Your task to perform on an android device: Open calendar and show me the fourth week of next month Image 0: 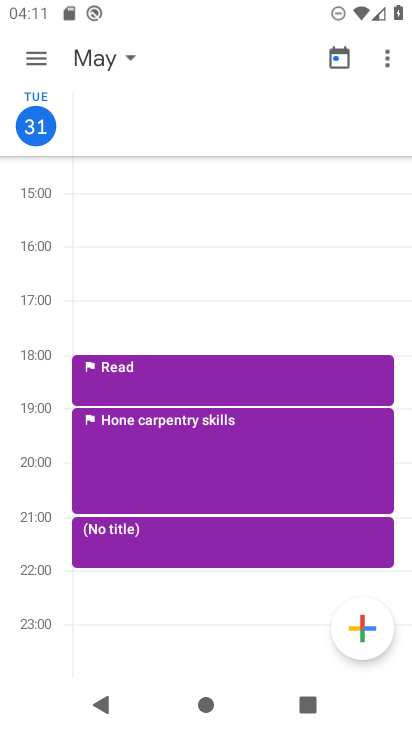
Step 0: press home button
Your task to perform on an android device: Open calendar and show me the fourth week of next month Image 1: 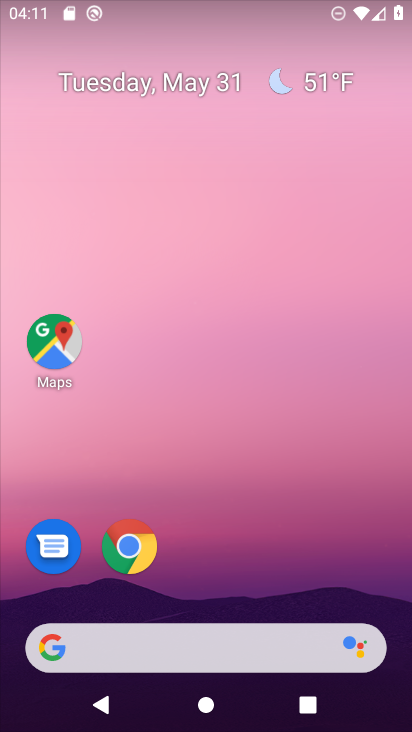
Step 1: drag from (226, 589) to (187, 329)
Your task to perform on an android device: Open calendar and show me the fourth week of next month Image 2: 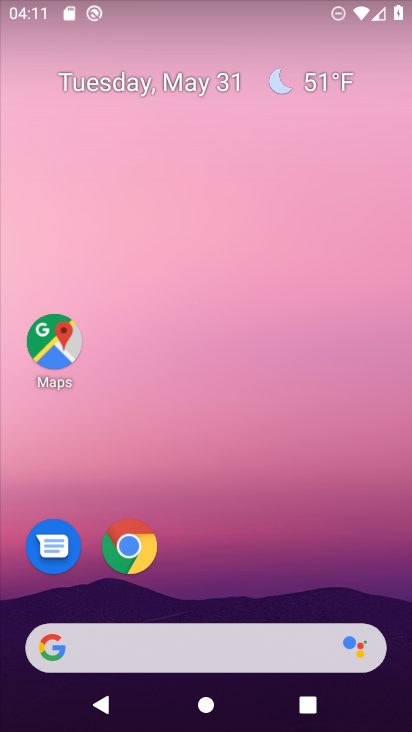
Step 2: drag from (226, 586) to (188, 112)
Your task to perform on an android device: Open calendar and show me the fourth week of next month Image 3: 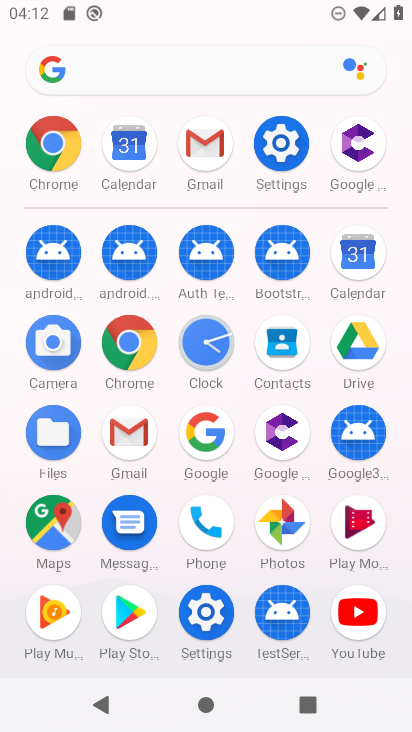
Step 3: click (360, 286)
Your task to perform on an android device: Open calendar and show me the fourth week of next month Image 4: 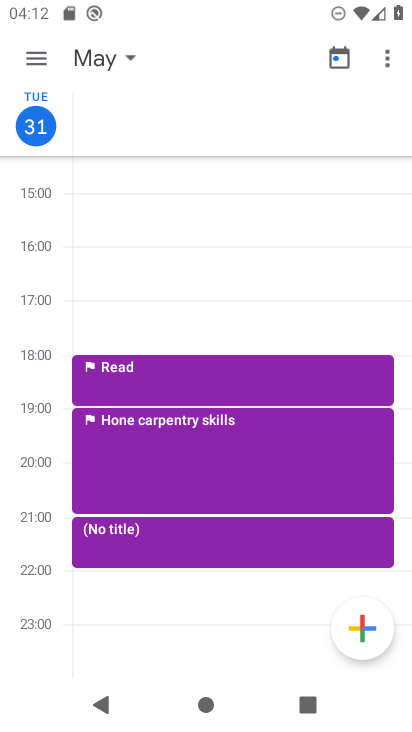
Step 4: click (34, 60)
Your task to perform on an android device: Open calendar and show me the fourth week of next month Image 5: 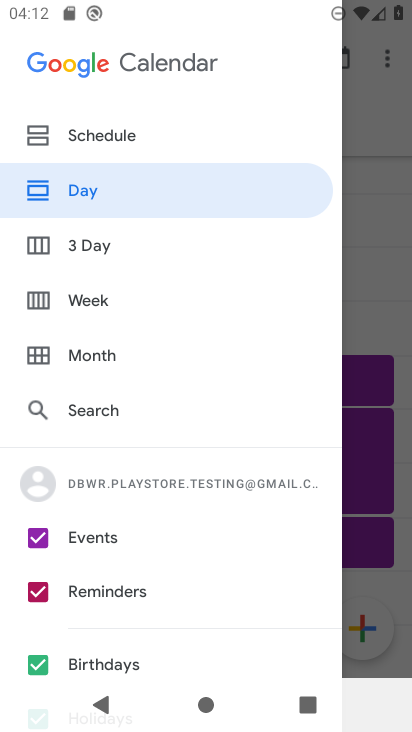
Step 5: click (83, 306)
Your task to perform on an android device: Open calendar and show me the fourth week of next month Image 6: 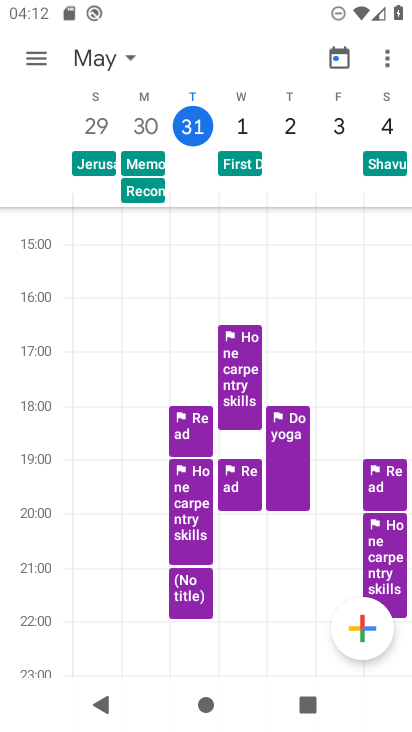
Step 6: click (86, 67)
Your task to perform on an android device: Open calendar and show me the fourth week of next month Image 7: 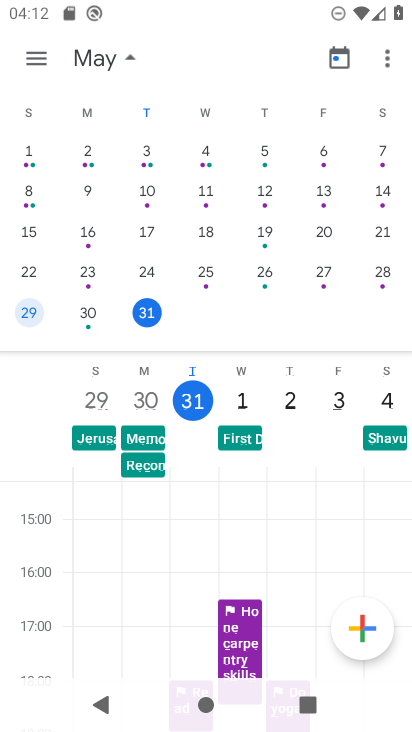
Step 7: drag from (339, 188) to (0, 223)
Your task to perform on an android device: Open calendar and show me the fourth week of next month Image 8: 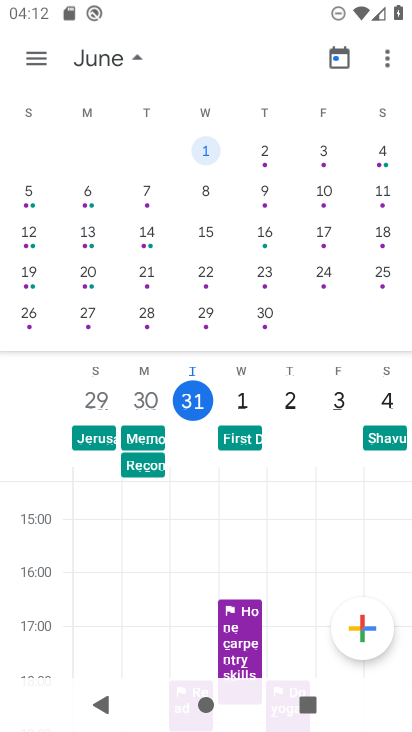
Step 8: click (23, 319)
Your task to perform on an android device: Open calendar and show me the fourth week of next month Image 9: 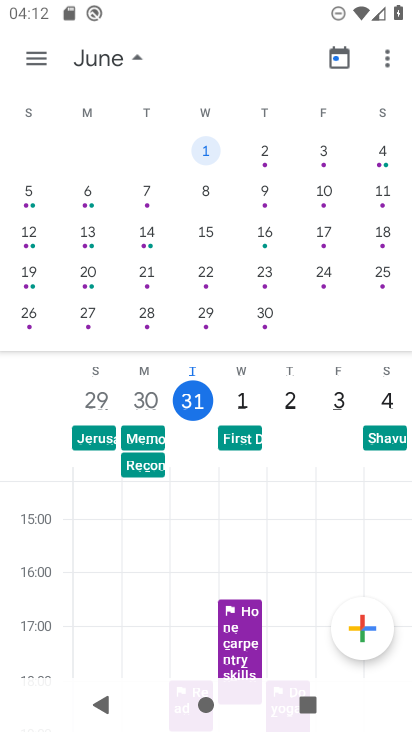
Step 9: click (32, 319)
Your task to perform on an android device: Open calendar and show me the fourth week of next month Image 10: 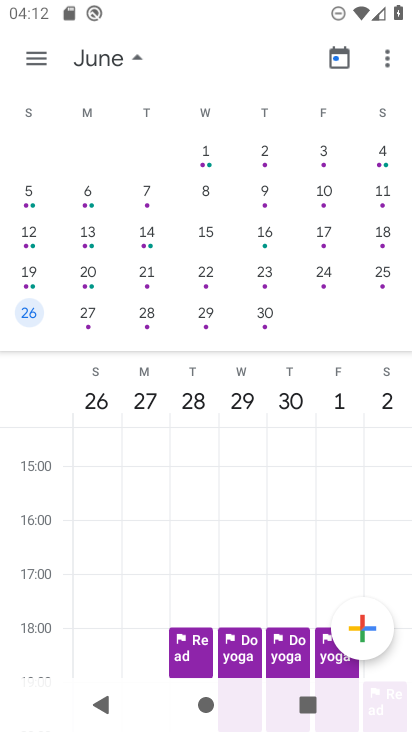
Step 10: task complete